Your task to perform on an android device: manage bookmarks in the chrome app Image 0: 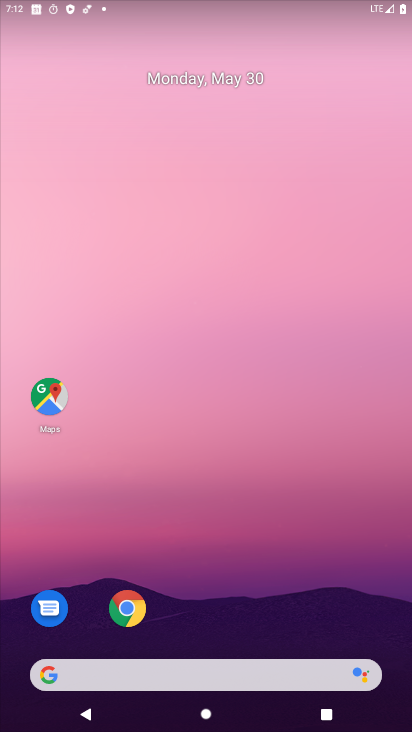
Step 0: drag from (184, 574) to (249, 164)
Your task to perform on an android device: manage bookmarks in the chrome app Image 1: 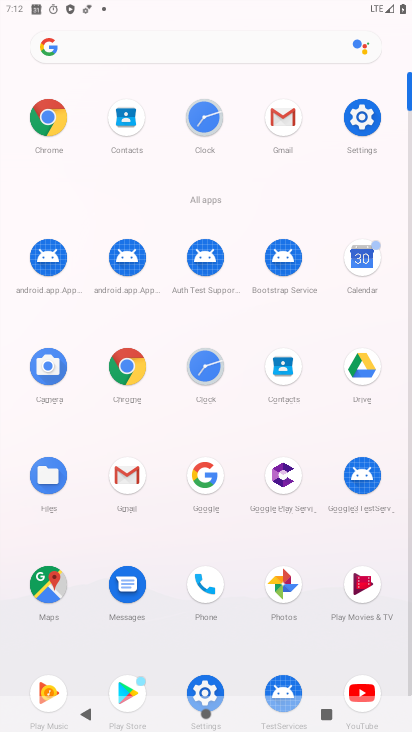
Step 1: click (120, 368)
Your task to perform on an android device: manage bookmarks in the chrome app Image 2: 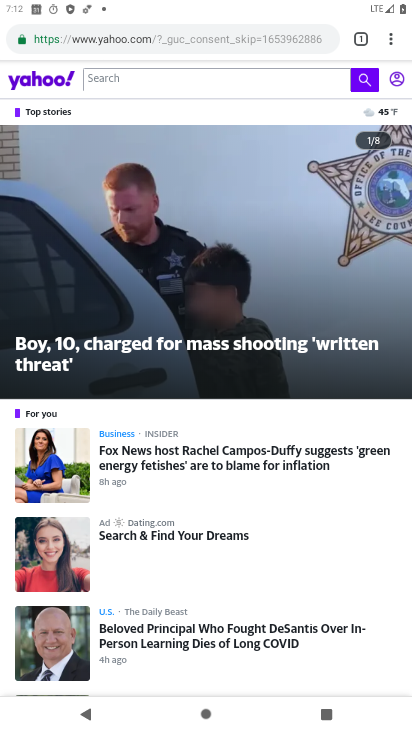
Step 2: click (392, 38)
Your task to perform on an android device: manage bookmarks in the chrome app Image 3: 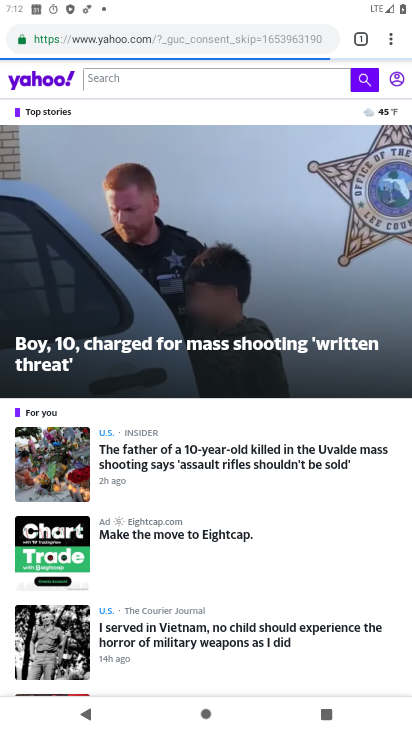
Step 3: click (391, 38)
Your task to perform on an android device: manage bookmarks in the chrome app Image 4: 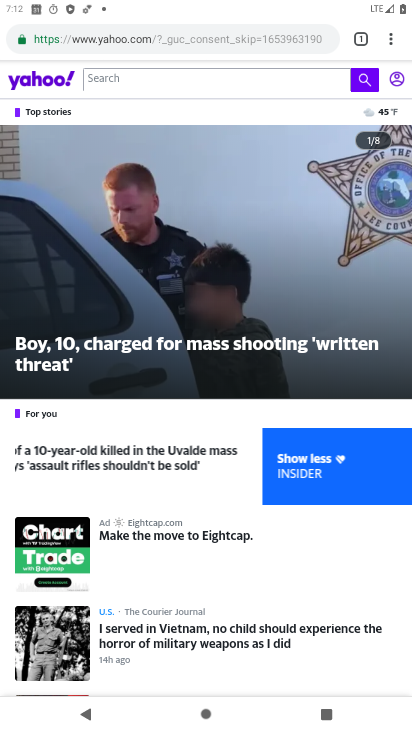
Step 4: click (392, 39)
Your task to perform on an android device: manage bookmarks in the chrome app Image 5: 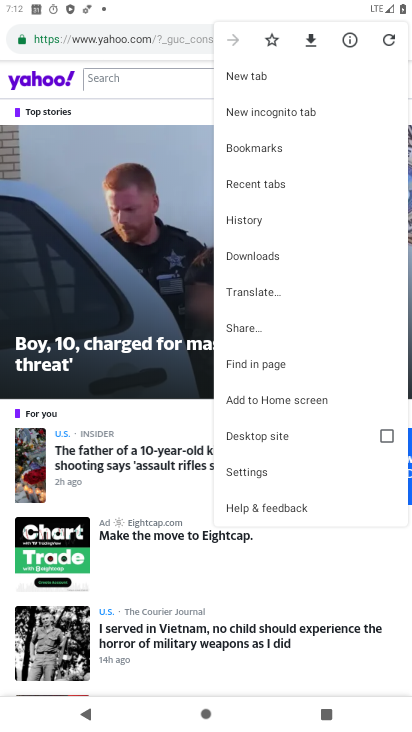
Step 5: click (277, 144)
Your task to perform on an android device: manage bookmarks in the chrome app Image 6: 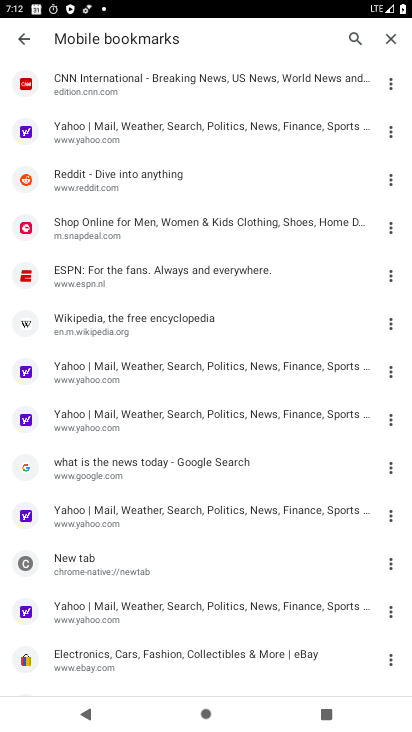
Step 6: task complete